Your task to perform on an android device: open app "Yahoo Mail" Image 0: 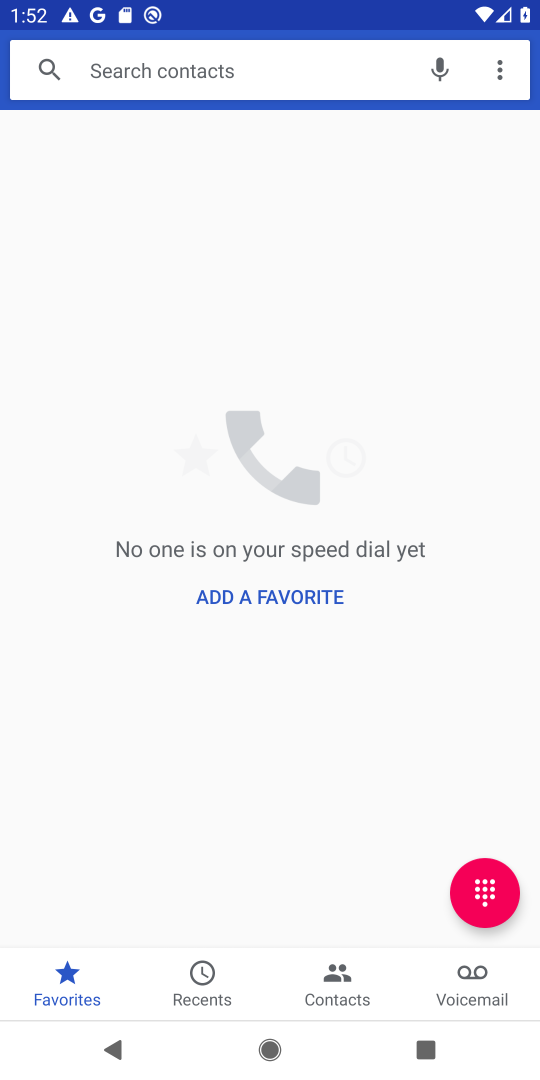
Step 0: press home button
Your task to perform on an android device: open app "Yahoo Mail" Image 1: 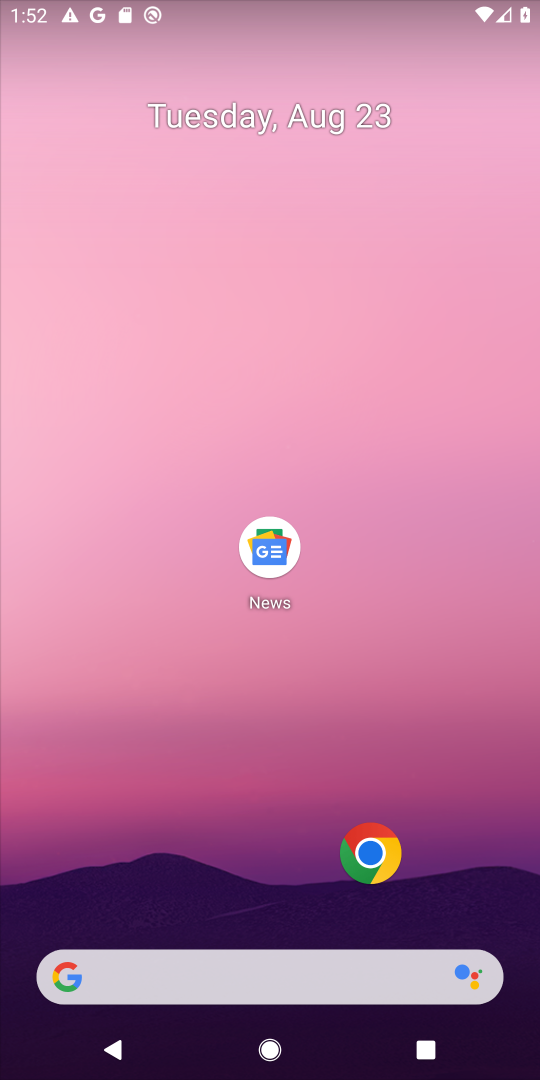
Step 1: drag from (520, 962) to (483, 252)
Your task to perform on an android device: open app "Yahoo Mail" Image 2: 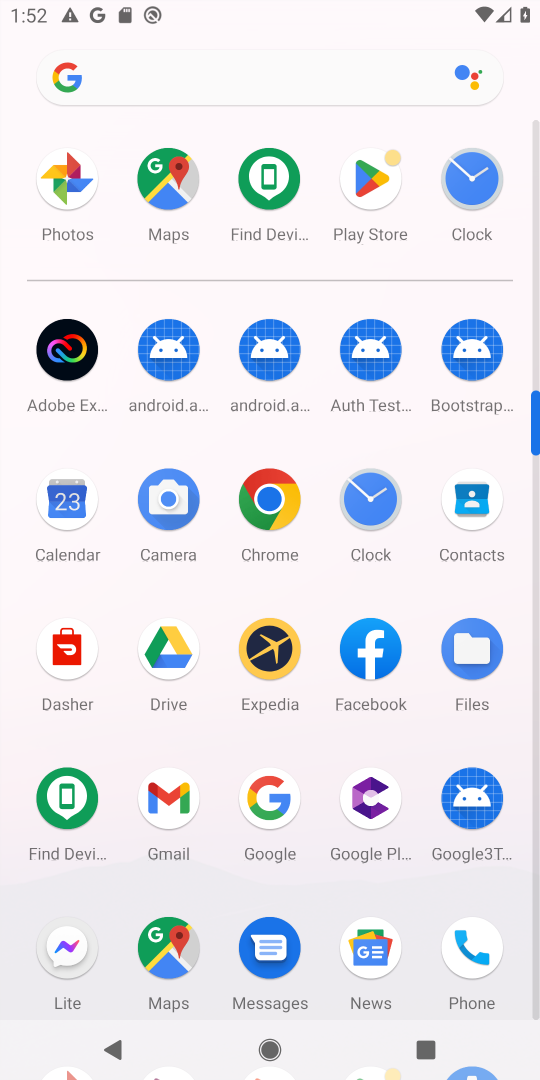
Step 2: click (536, 954)
Your task to perform on an android device: open app "Yahoo Mail" Image 3: 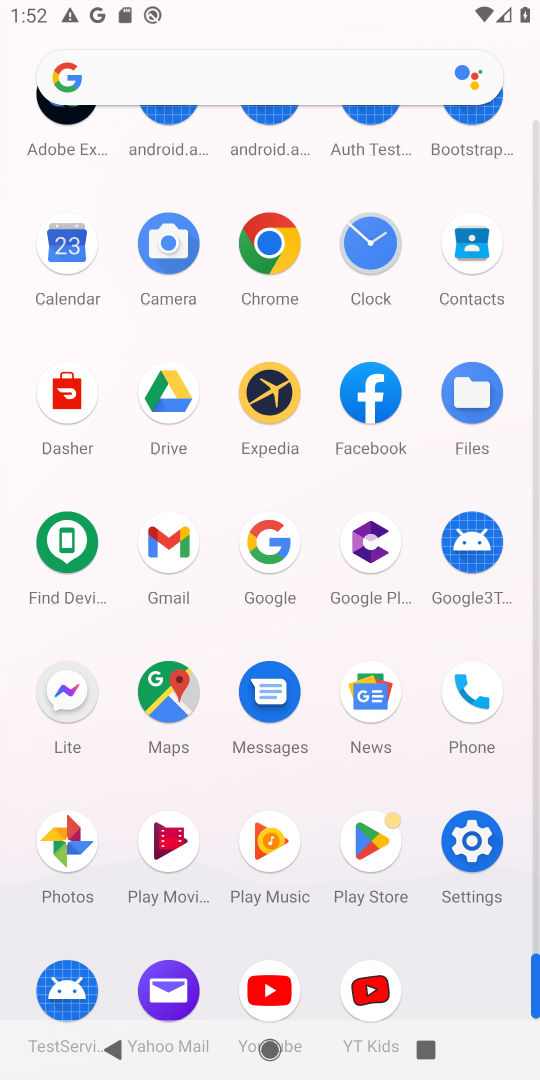
Step 3: click (370, 845)
Your task to perform on an android device: open app "Yahoo Mail" Image 4: 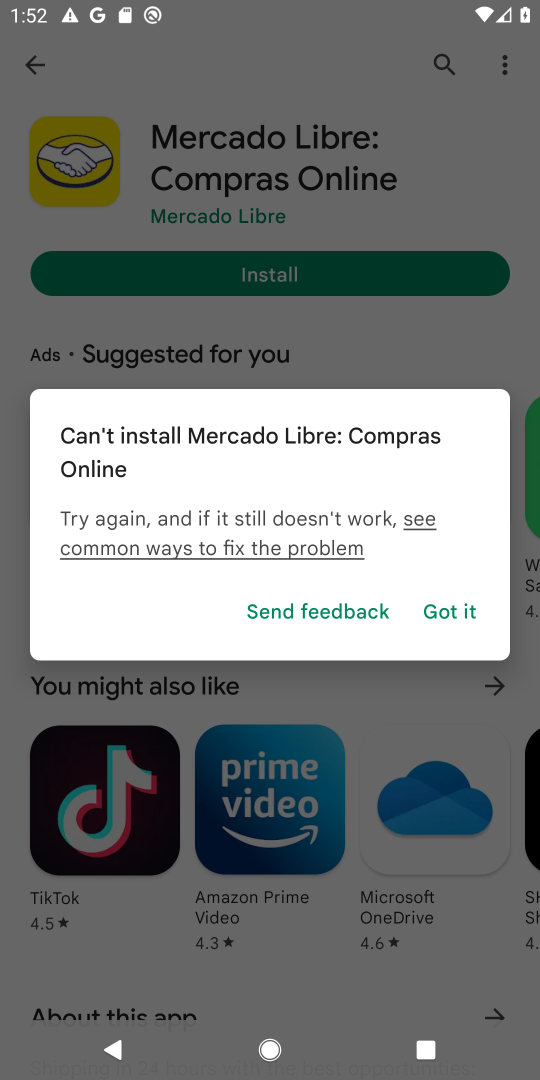
Step 4: click (439, 610)
Your task to perform on an android device: open app "Yahoo Mail" Image 5: 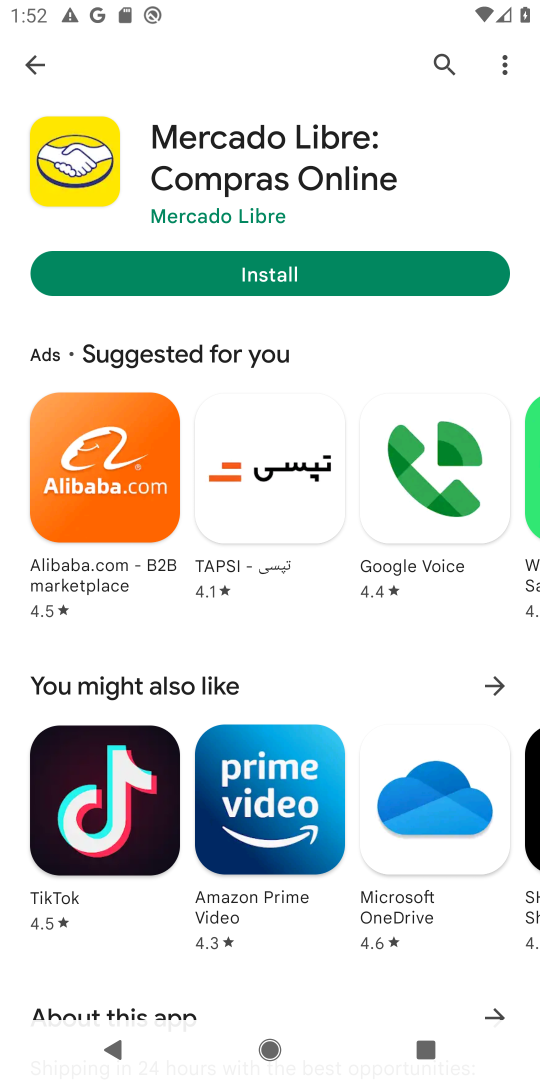
Step 5: click (442, 58)
Your task to perform on an android device: open app "Yahoo Mail" Image 6: 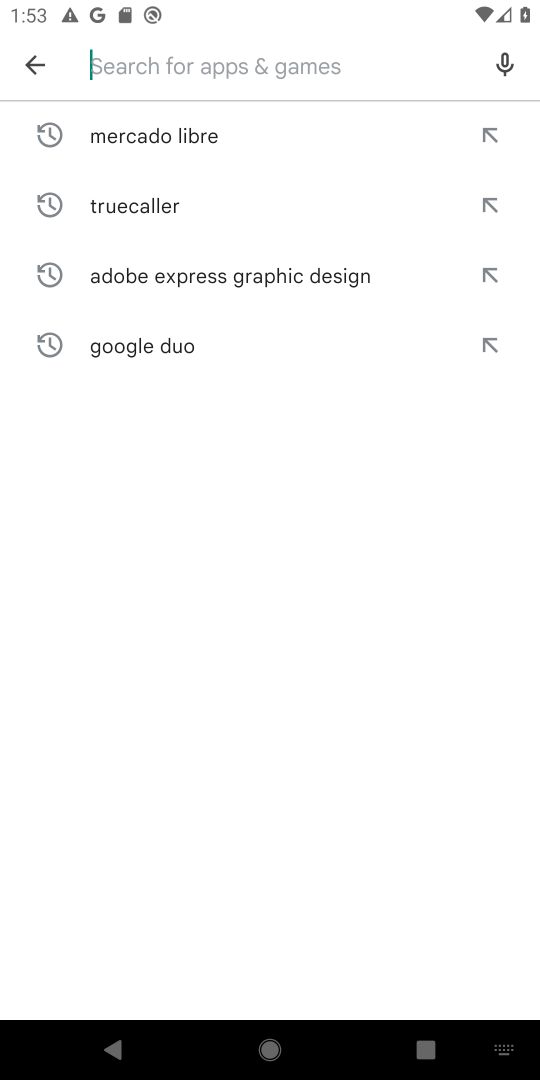
Step 6: type "Yahoo Mail"
Your task to perform on an android device: open app "Yahoo Mail" Image 7: 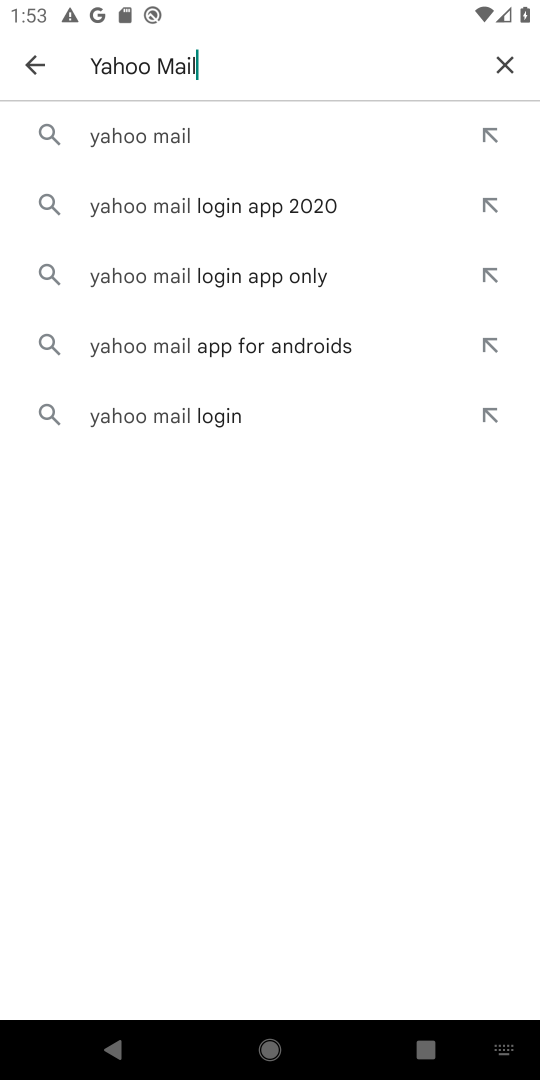
Step 7: click (134, 130)
Your task to perform on an android device: open app "Yahoo Mail" Image 8: 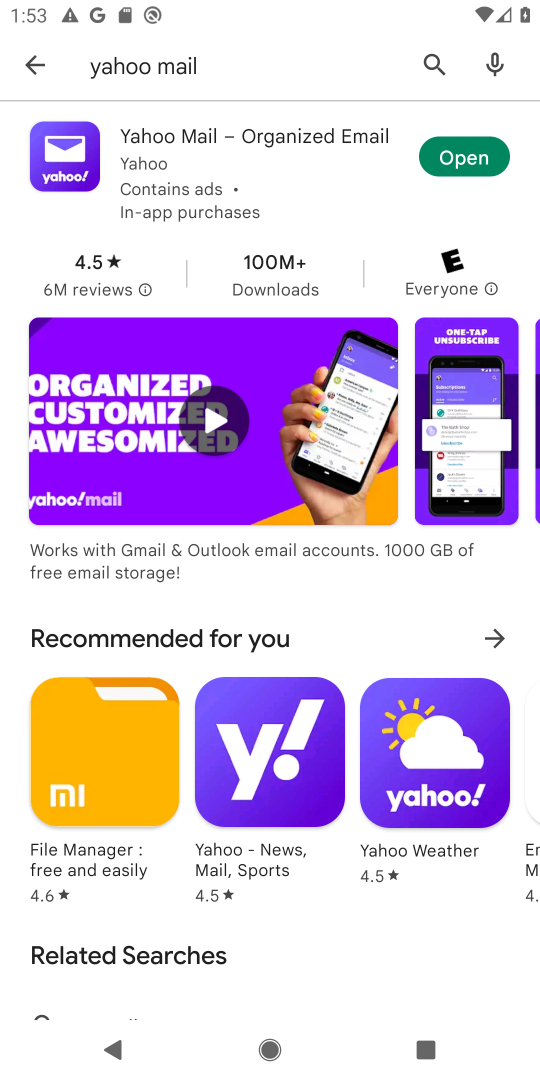
Step 8: click (462, 154)
Your task to perform on an android device: open app "Yahoo Mail" Image 9: 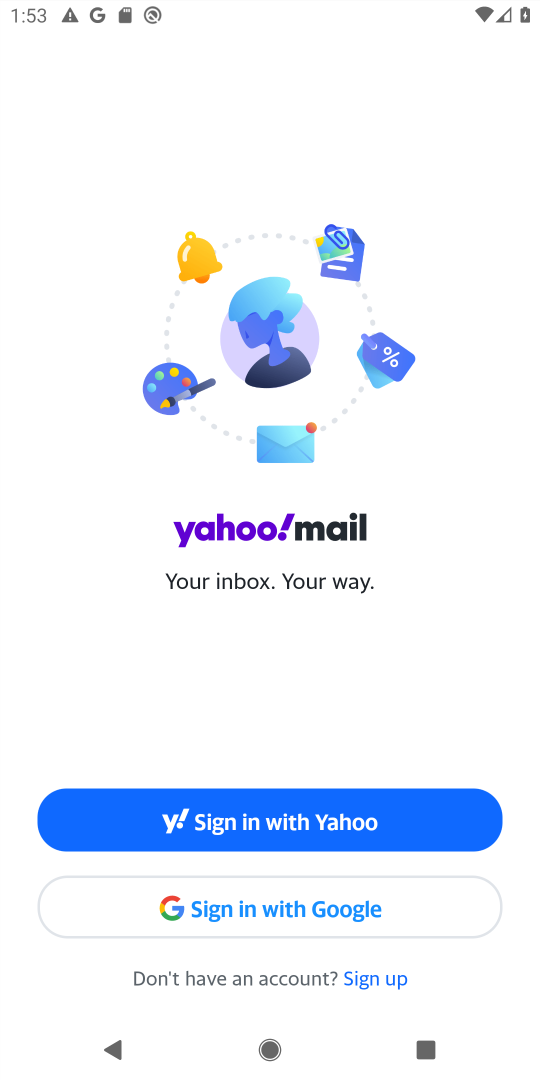
Step 9: task complete